Your task to perform on an android device: Open Amazon Image 0: 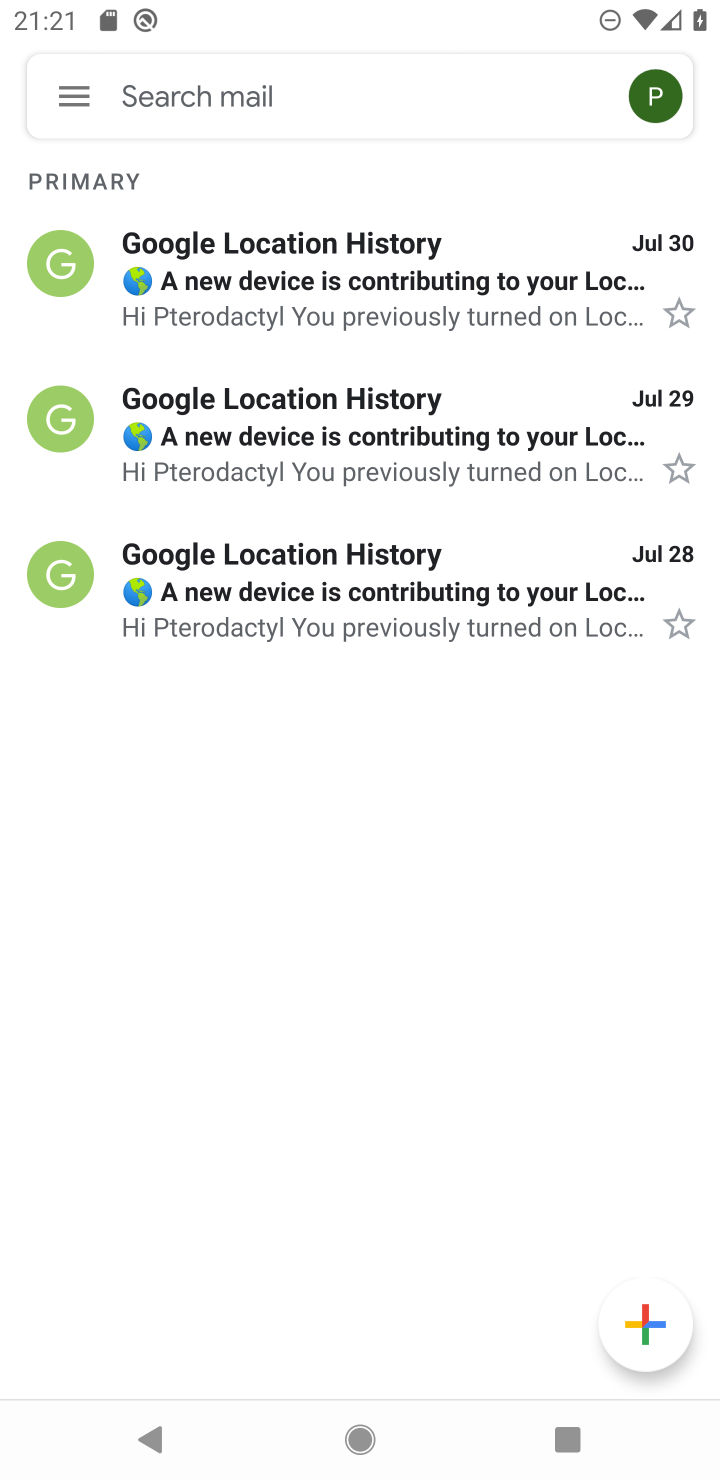
Step 0: press home button
Your task to perform on an android device: Open Amazon Image 1: 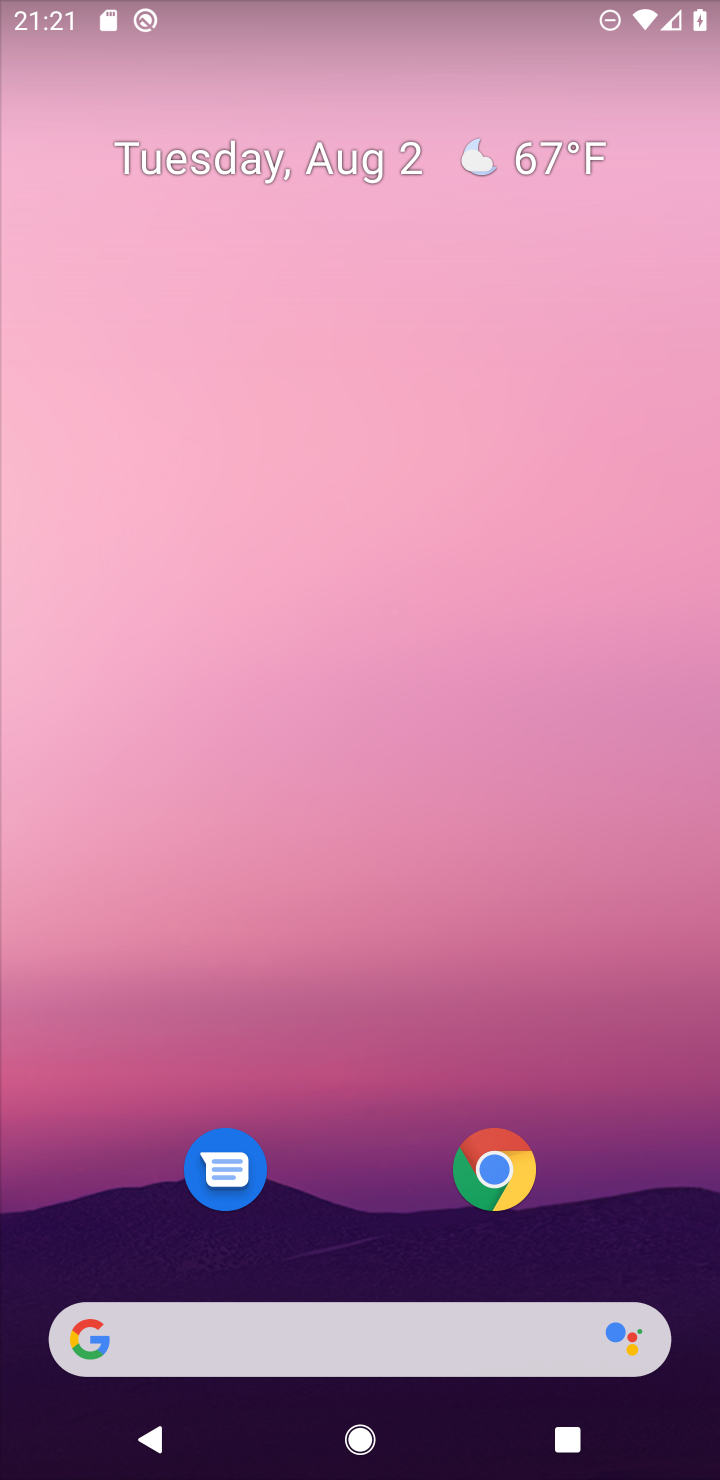
Step 1: drag from (359, 1247) to (359, 400)
Your task to perform on an android device: Open Amazon Image 2: 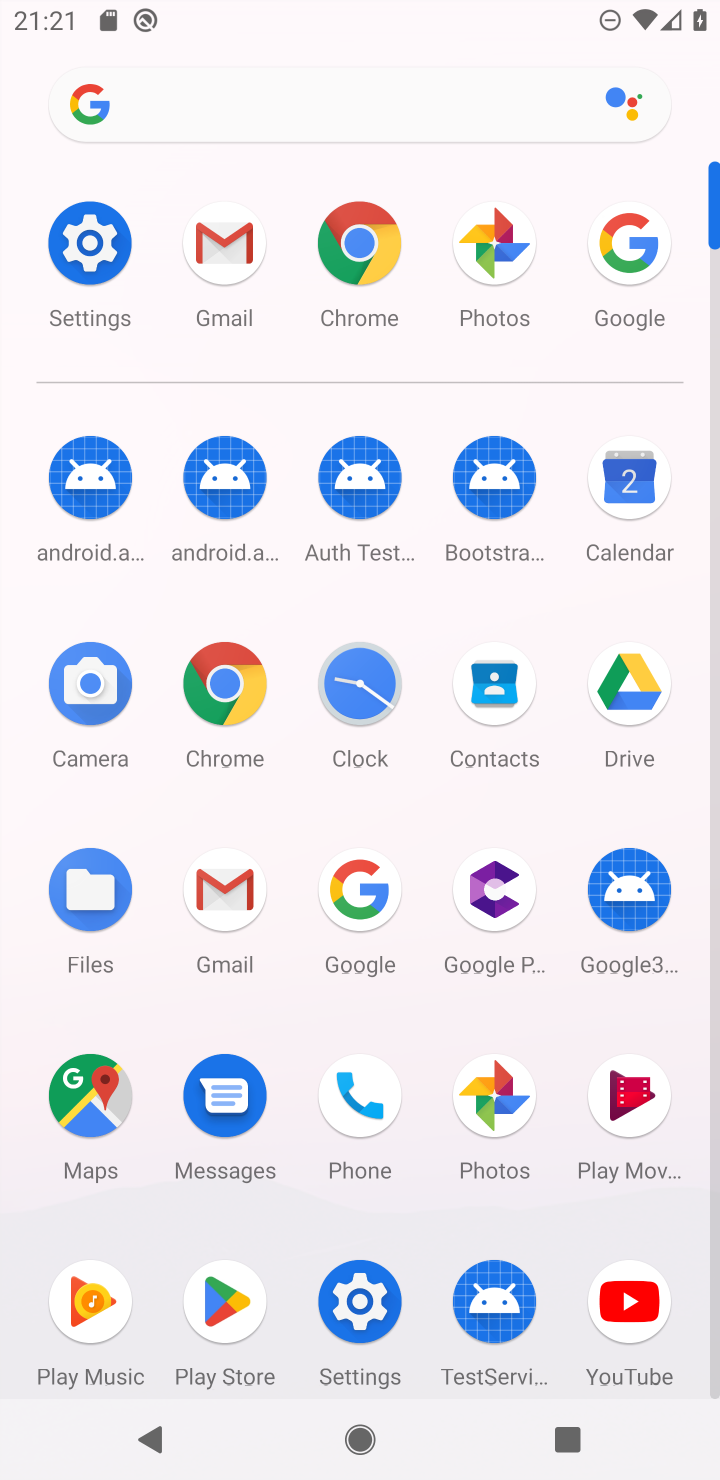
Step 2: click (354, 242)
Your task to perform on an android device: Open Amazon Image 3: 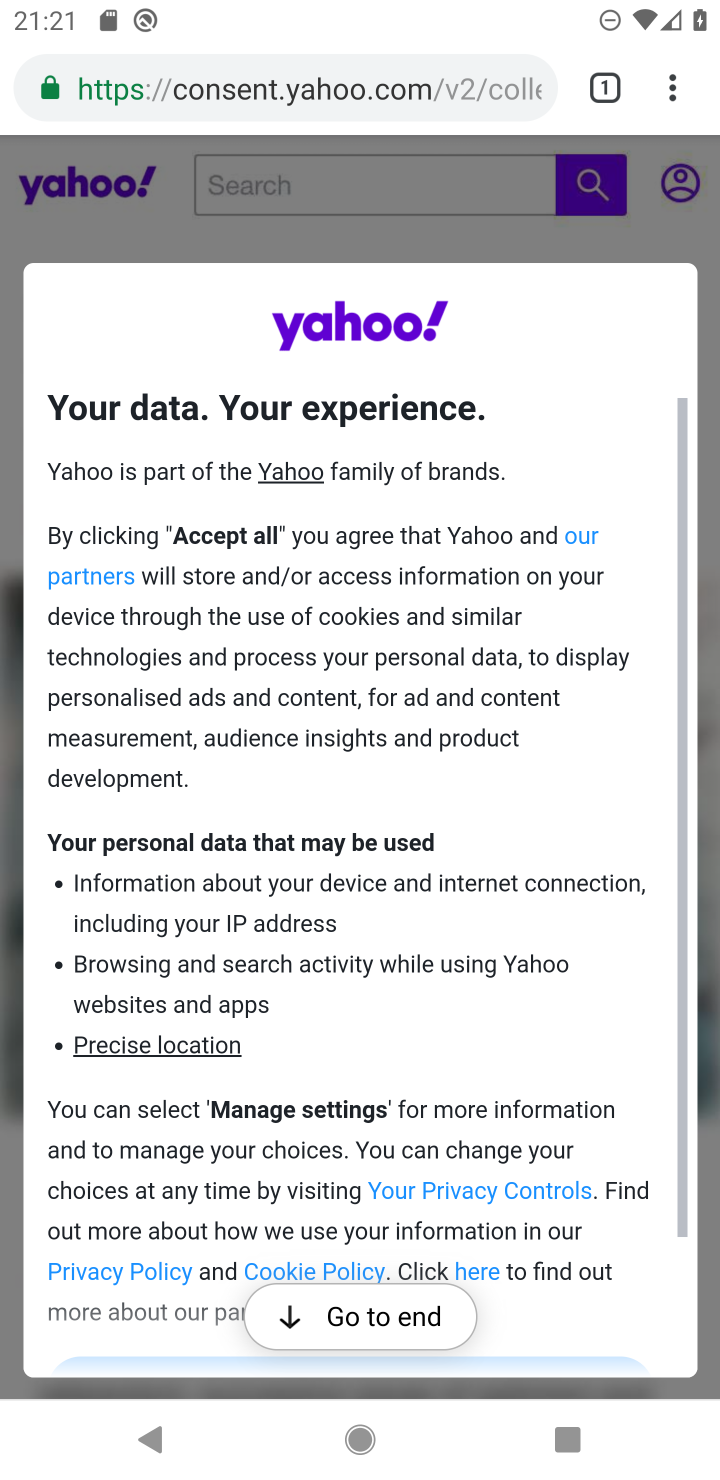
Step 3: click (674, 98)
Your task to perform on an android device: Open Amazon Image 4: 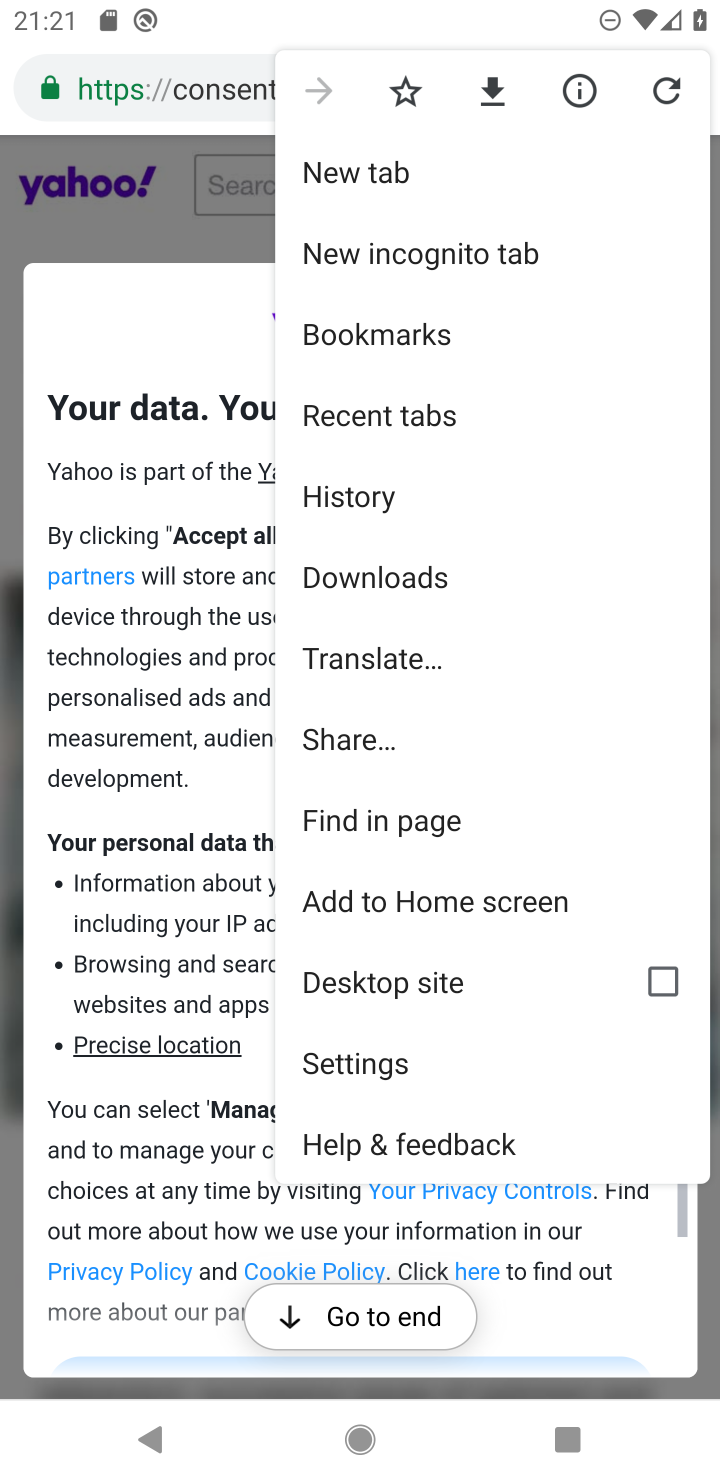
Step 4: click (366, 173)
Your task to perform on an android device: Open Amazon Image 5: 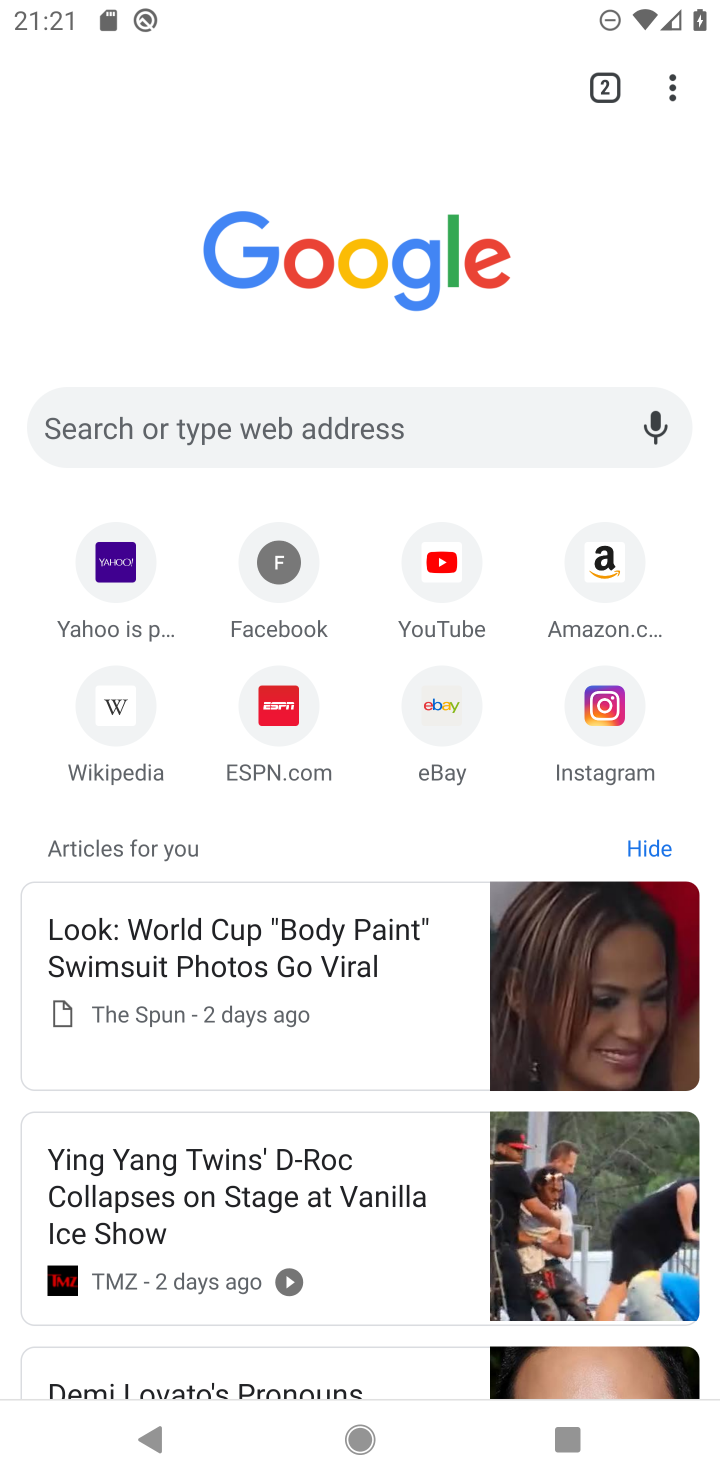
Step 5: click (604, 561)
Your task to perform on an android device: Open Amazon Image 6: 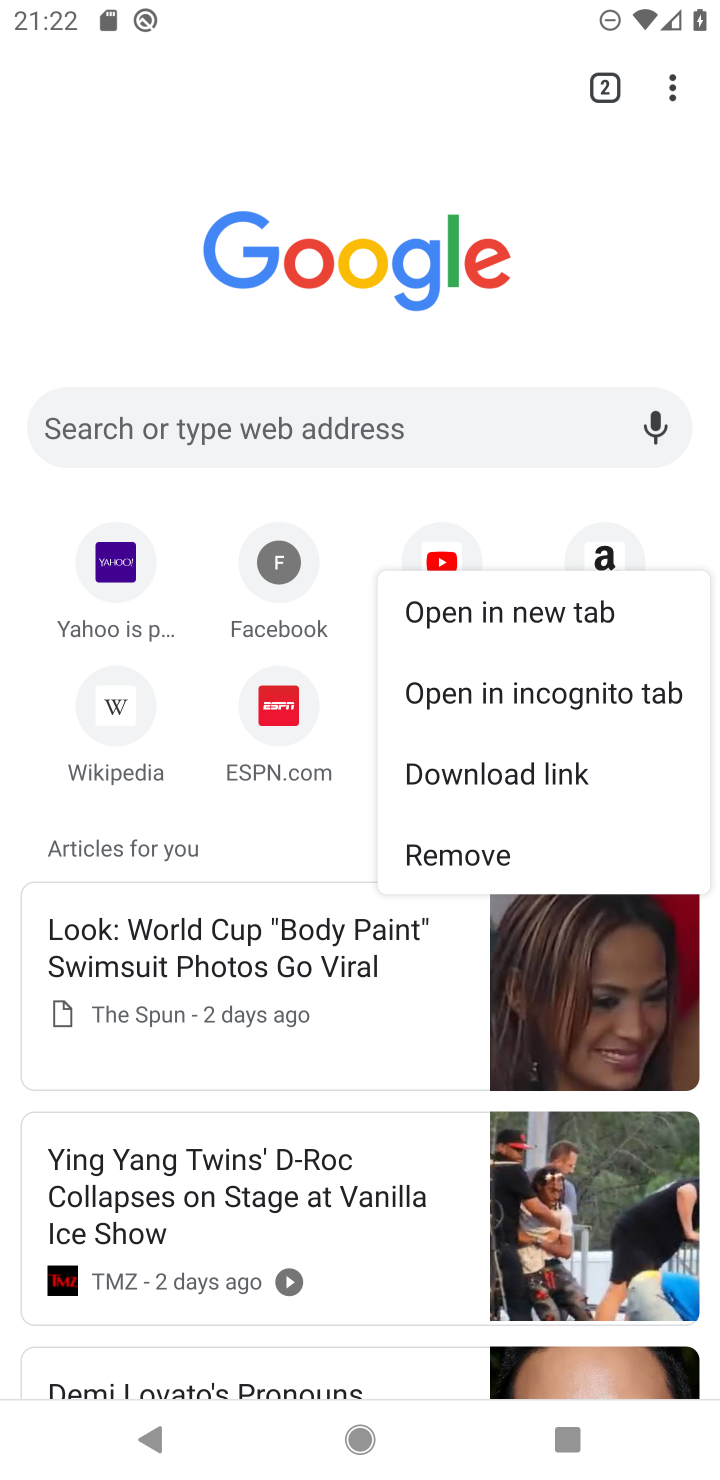
Step 6: click (600, 552)
Your task to perform on an android device: Open Amazon Image 7: 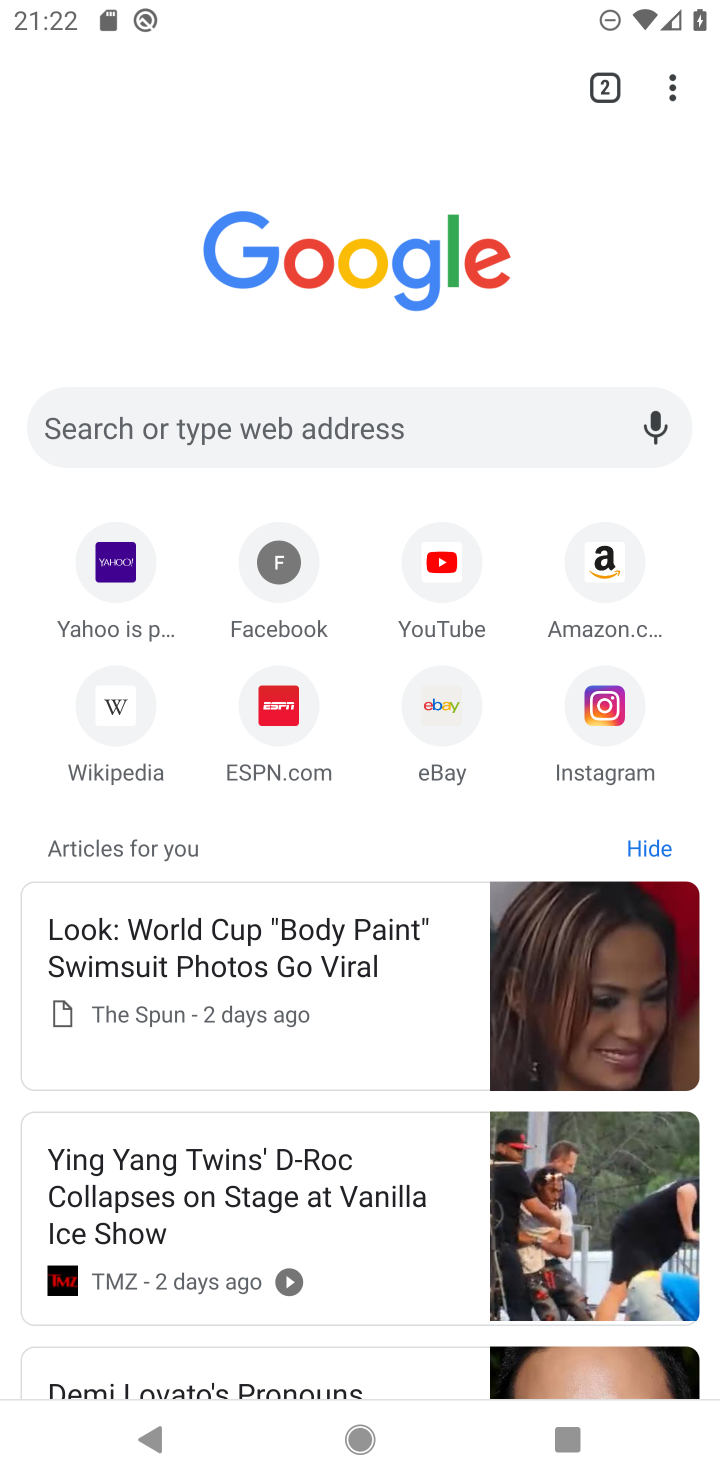
Step 7: click (600, 552)
Your task to perform on an android device: Open Amazon Image 8: 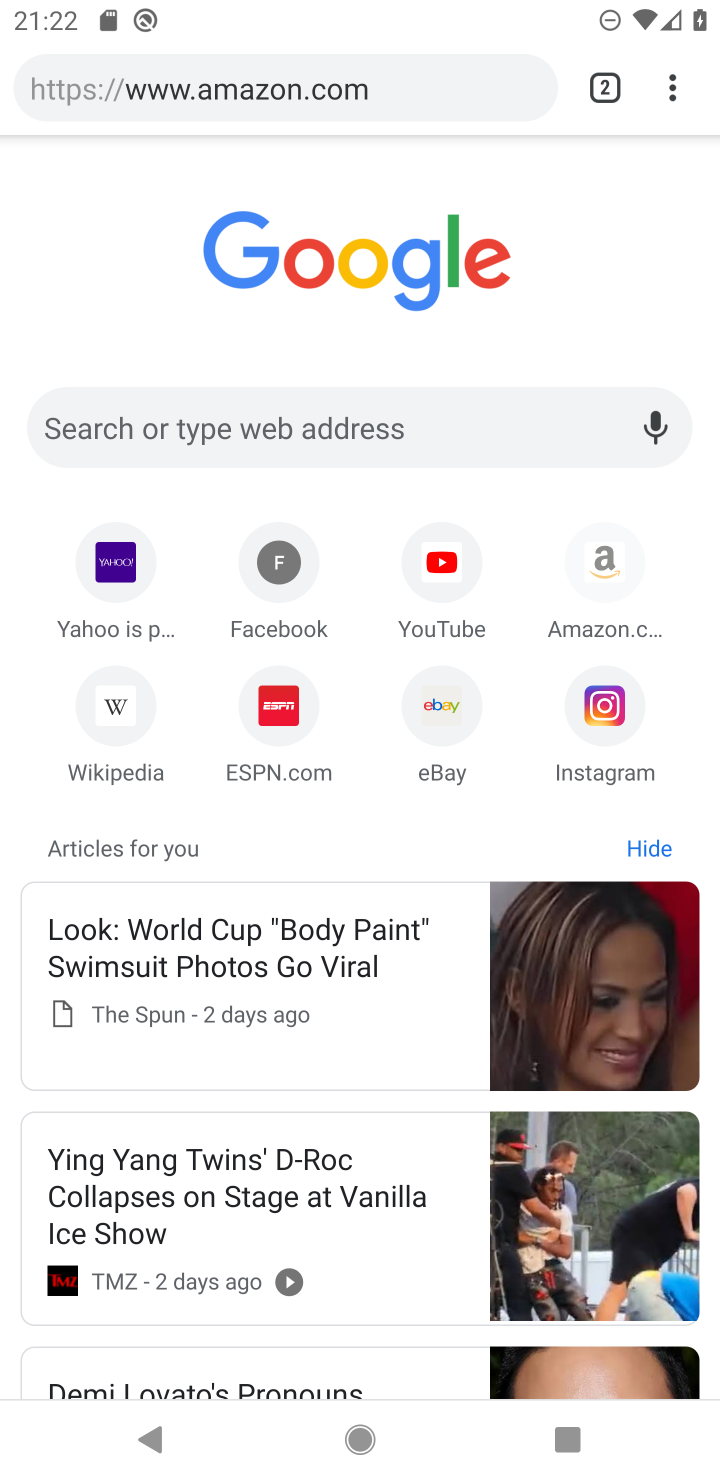
Step 8: click (600, 552)
Your task to perform on an android device: Open Amazon Image 9: 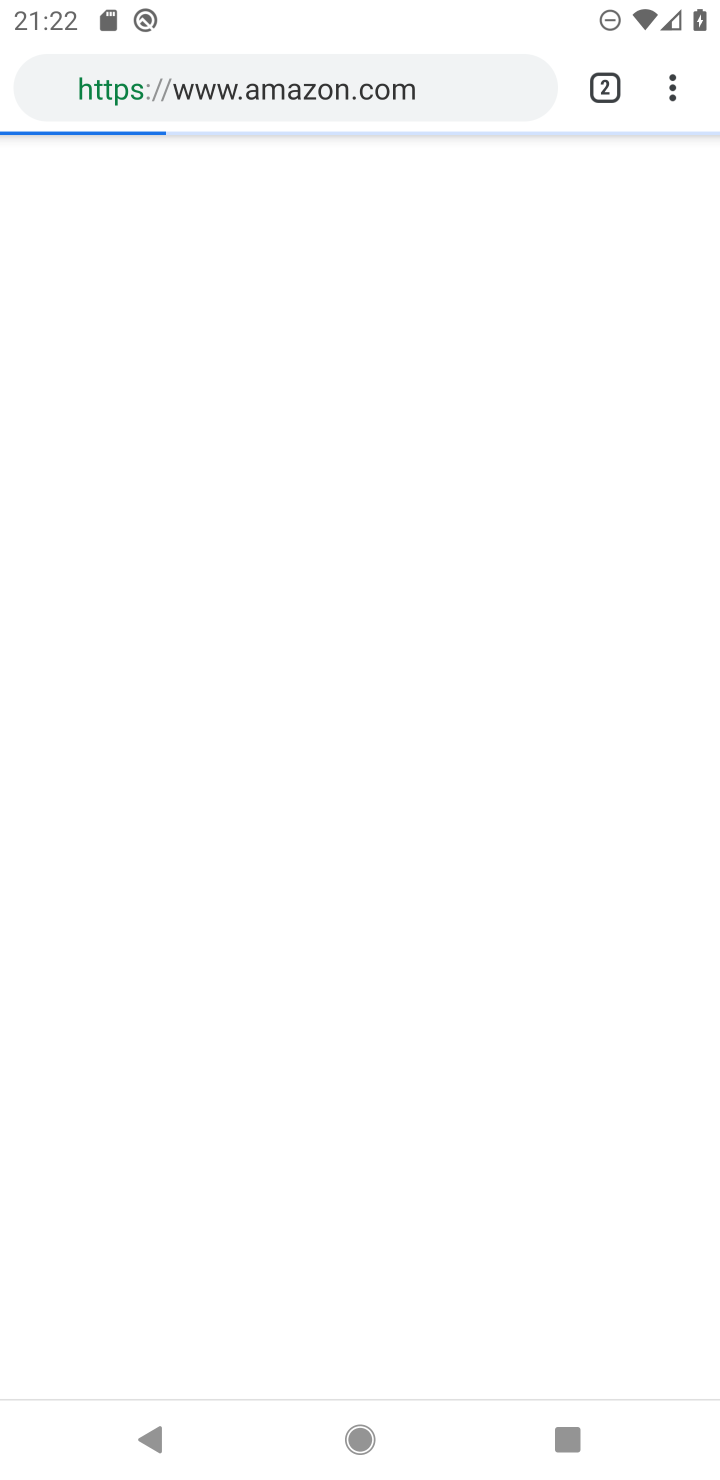
Step 9: click (600, 552)
Your task to perform on an android device: Open Amazon Image 10: 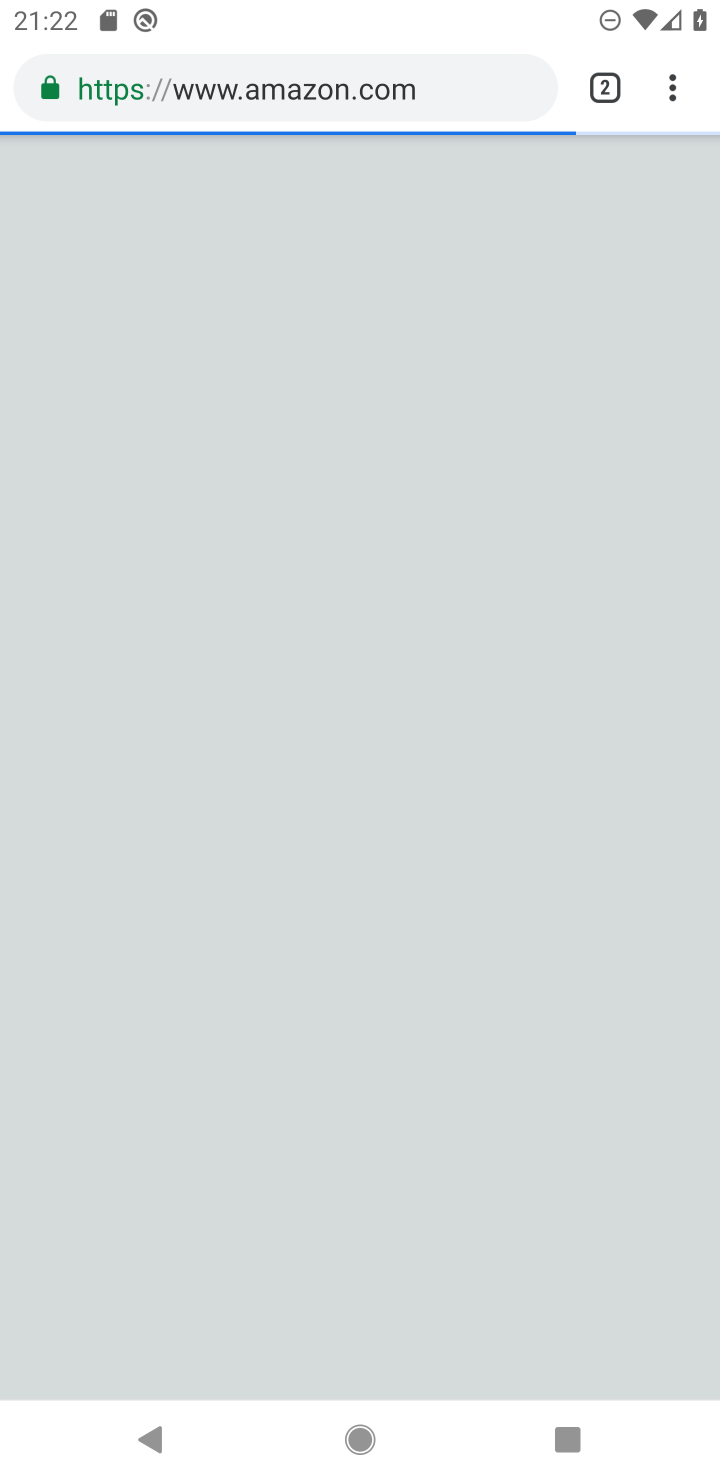
Step 10: task complete